Your task to perform on an android device: open sync settings in chrome Image 0: 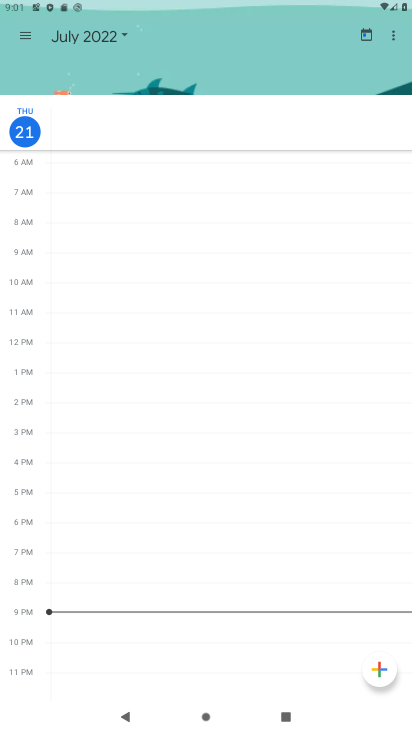
Step 0: press home button
Your task to perform on an android device: open sync settings in chrome Image 1: 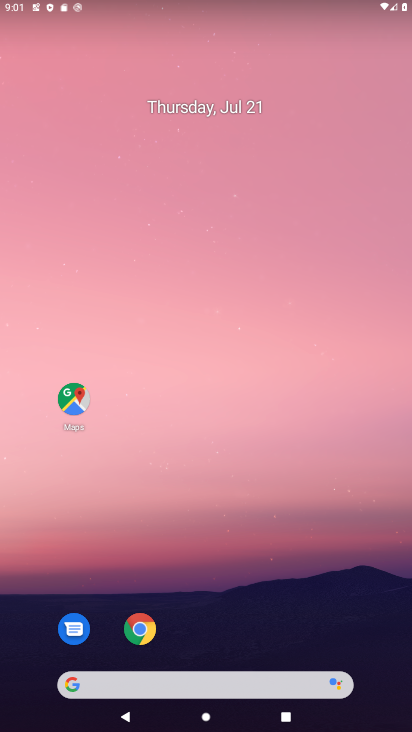
Step 1: click (143, 614)
Your task to perform on an android device: open sync settings in chrome Image 2: 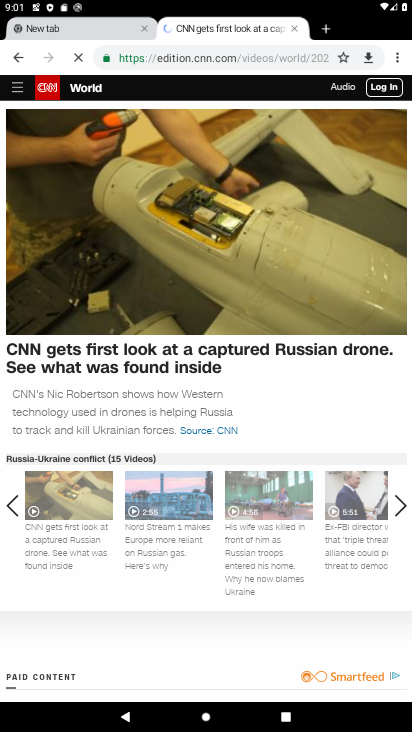
Step 2: click (401, 51)
Your task to perform on an android device: open sync settings in chrome Image 3: 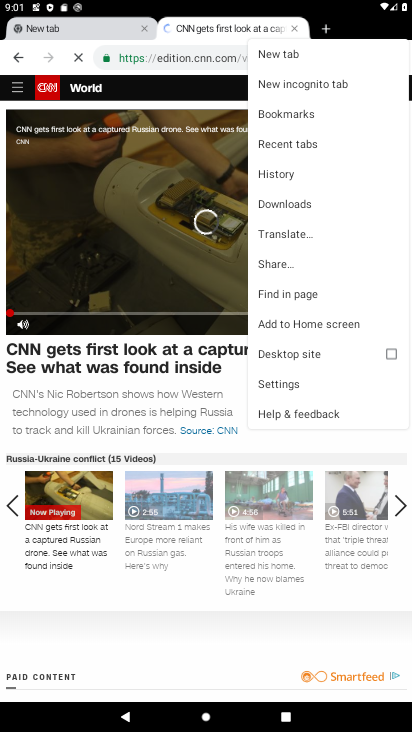
Step 3: click (288, 386)
Your task to perform on an android device: open sync settings in chrome Image 4: 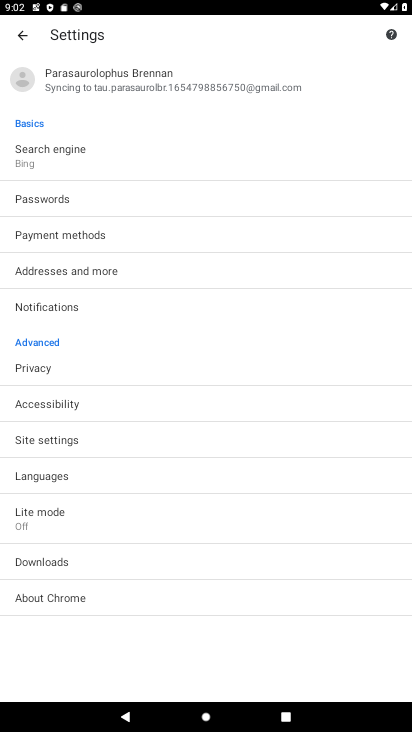
Step 4: click (134, 88)
Your task to perform on an android device: open sync settings in chrome Image 5: 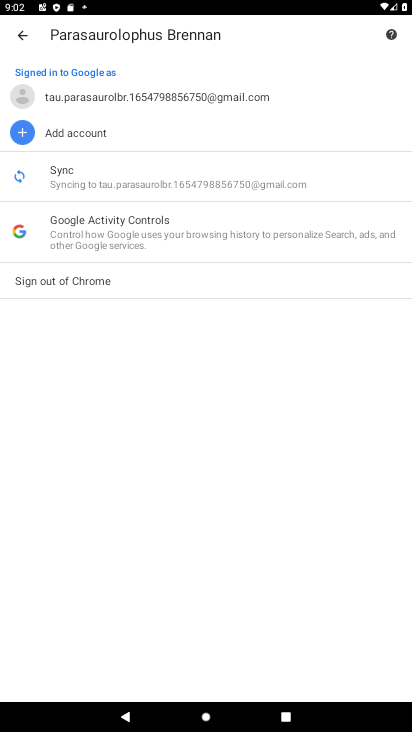
Step 5: click (75, 187)
Your task to perform on an android device: open sync settings in chrome Image 6: 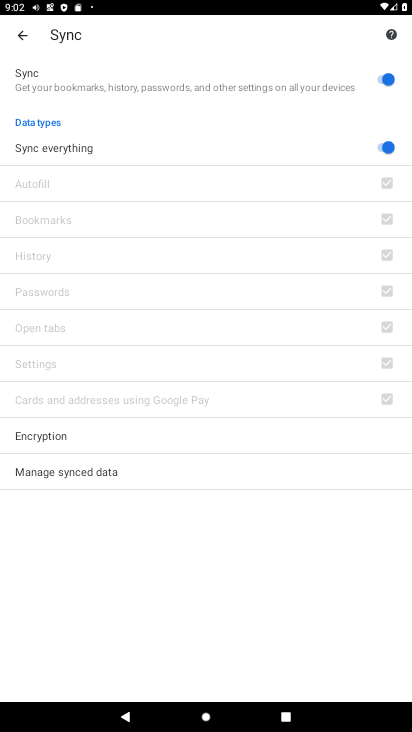
Step 6: task complete